Your task to perform on an android device: Go to Amazon Image 0: 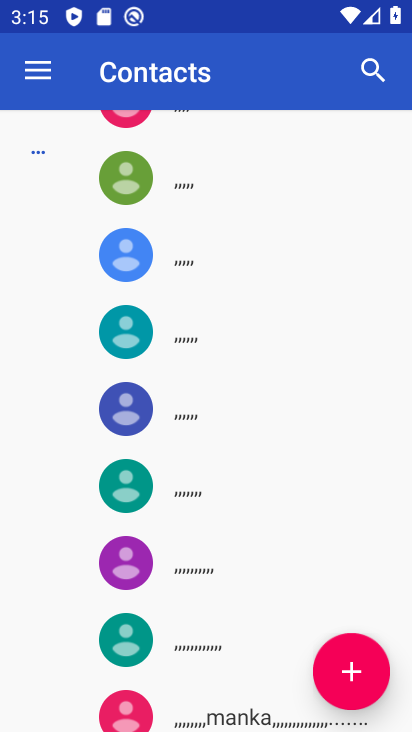
Step 0: press home button
Your task to perform on an android device: Go to Amazon Image 1: 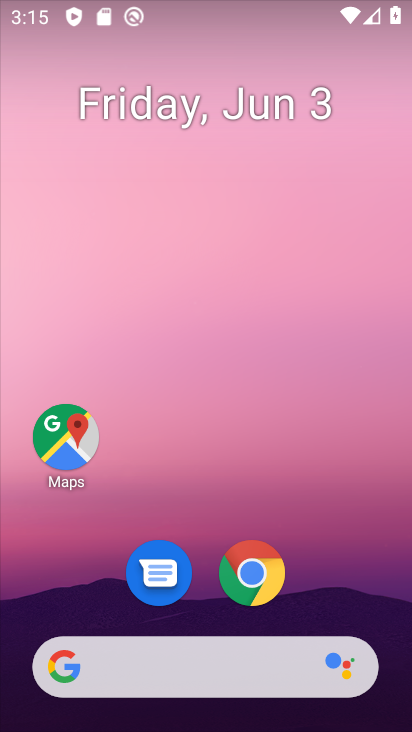
Step 1: click (252, 568)
Your task to perform on an android device: Go to Amazon Image 2: 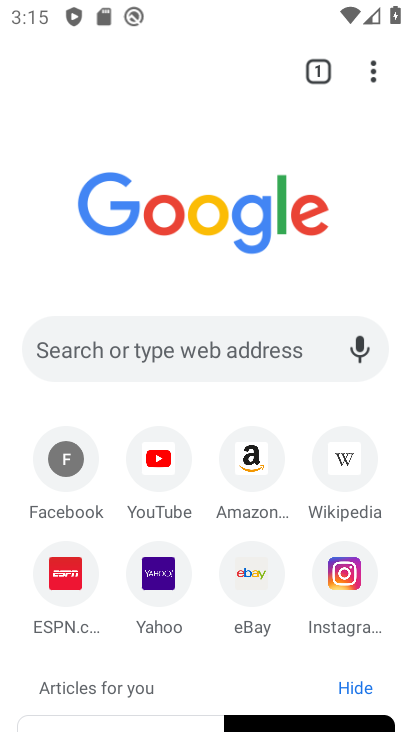
Step 2: click (212, 345)
Your task to perform on an android device: Go to Amazon Image 3: 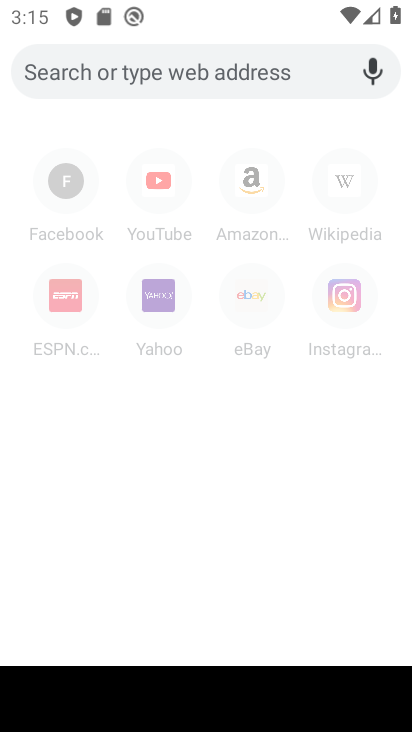
Step 3: type "Amazon"
Your task to perform on an android device: Go to Amazon Image 4: 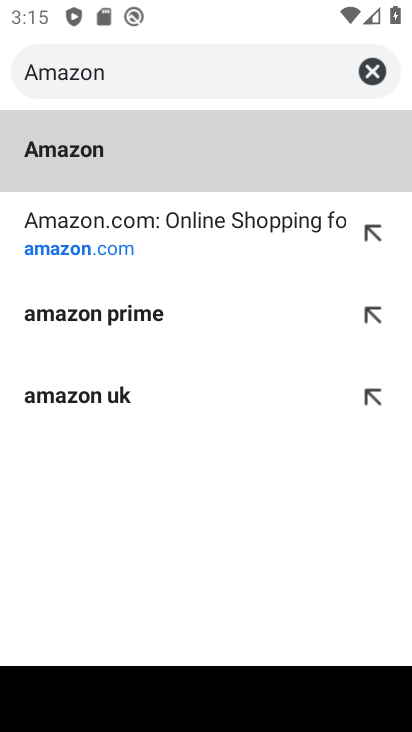
Step 4: click (74, 158)
Your task to perform on an android device: Go to Amazon Image 5: 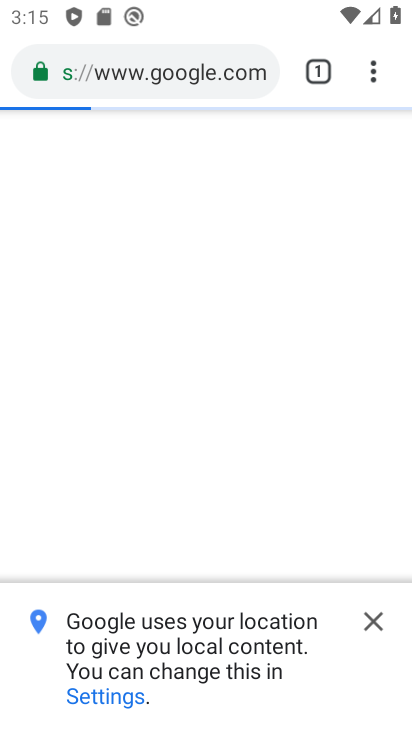
Step 5: task complete